Your task to perform on an android device: change keyboard looks Image 0: 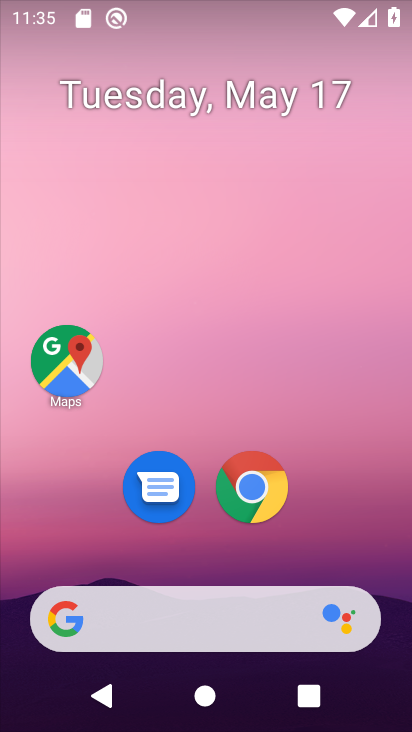
Step 0: drag from (376, 541) to (330, 142)
Your task to perform on an android device: change keyboard looks Image 1: 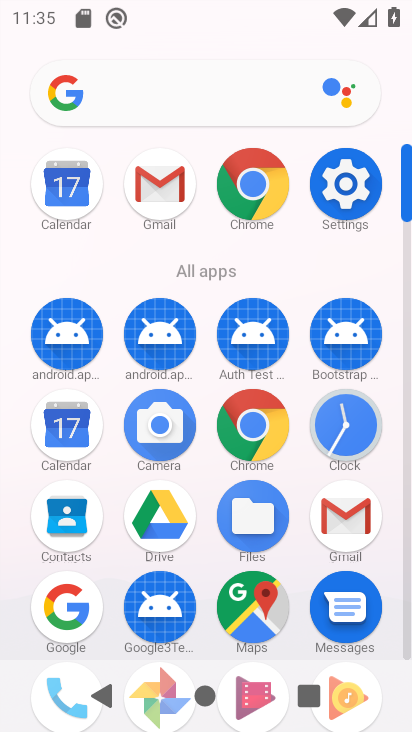
Step 1: click (357, 160)
Your task to perform on an android device: change keyboard looks Image 2: 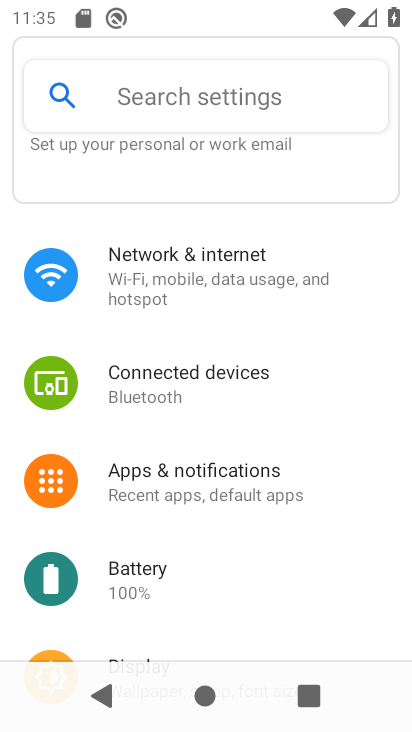
Step 2: drag from (306, 610) to (264, 115)
Your task to perform on an android device: change keyboard looks Image 3: 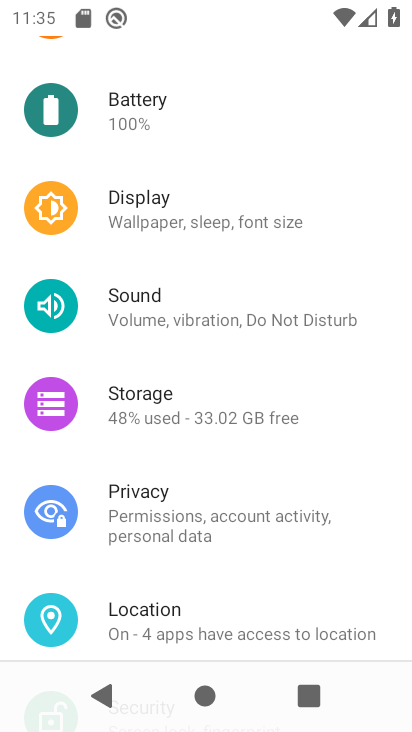
Step 3: drag from (284, 600) to (211, 138)
Your task to perform on an android device: change keyboard looks Image 4: 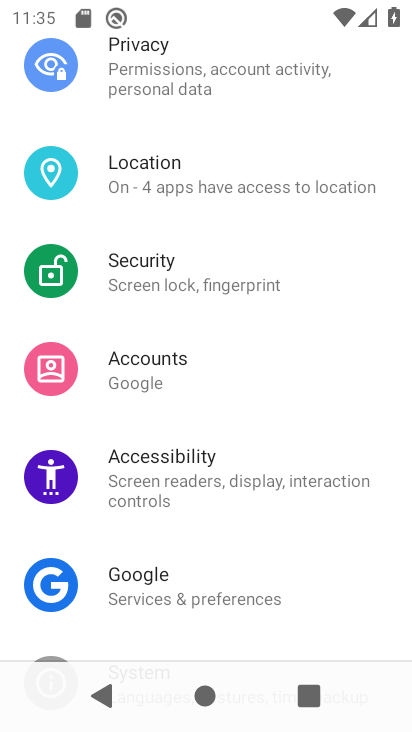
Step 4: drag from (257, 637) to (225, 201)
Your task to perform on an android device: change keyboard looks Image 5: 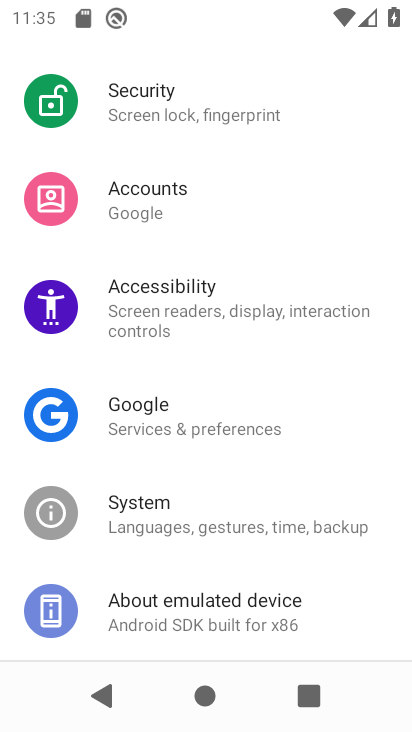
Step 5: click (264, 522)
Your task to perform on an android device: change keyboard looks Image 6: 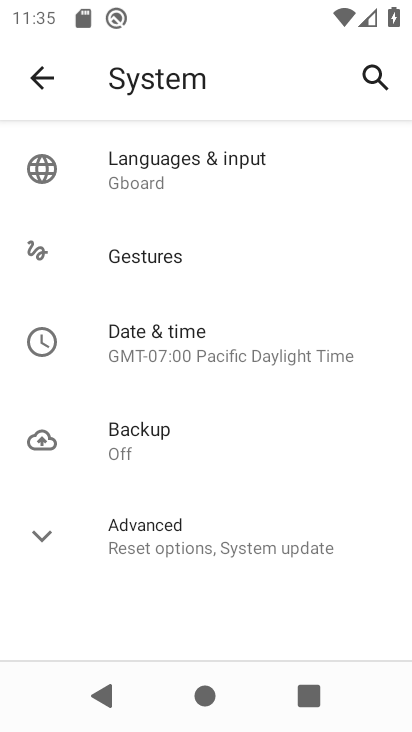
Step 6: click (242, 186)
Your task to perform on an android device: change keyboard looks Image 7: 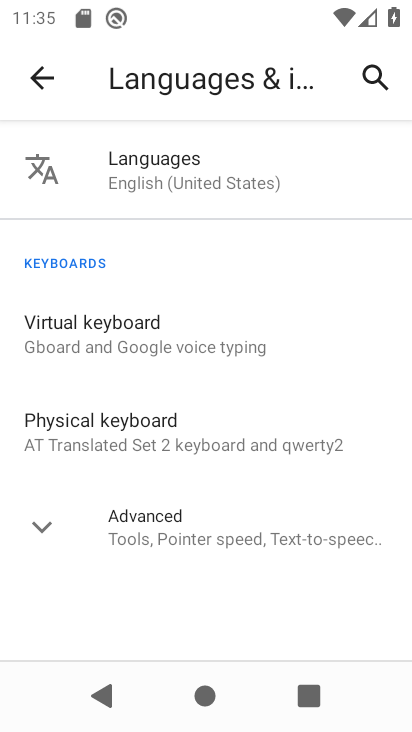
Step 7: click (226, 329)
Your task to perform on an android device: change keyboard looks Image 8: 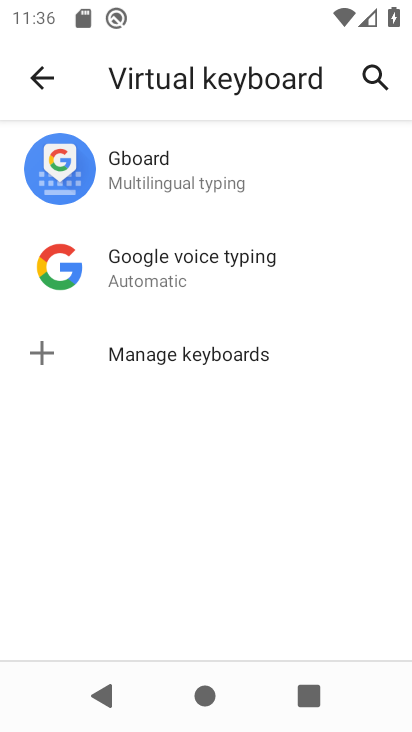
Step 8: click (261, 168)
Your task to perform on an android device: change keyboard looks Image 9: 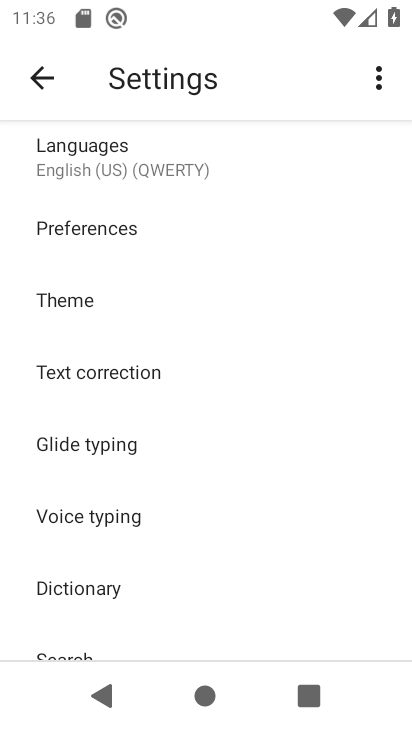
Step 9: click (131, 299)
Your task to perform on an android device: change keyboard looks Image 10: 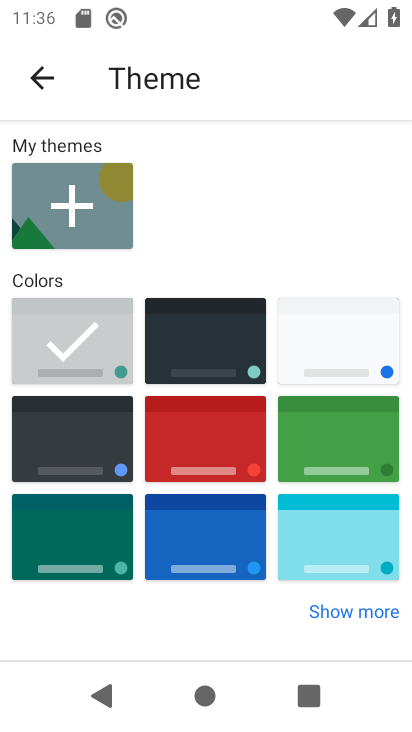
Step 10: click (172, 321)
Your task to perform on an android device: change keyboard looks Image 11: 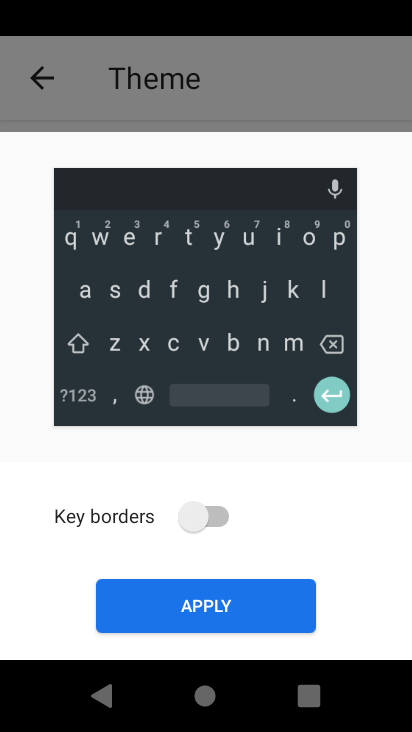
Step 11: click (248, 605)
Your task to perform on an android device: change keyboard looks Image 12: 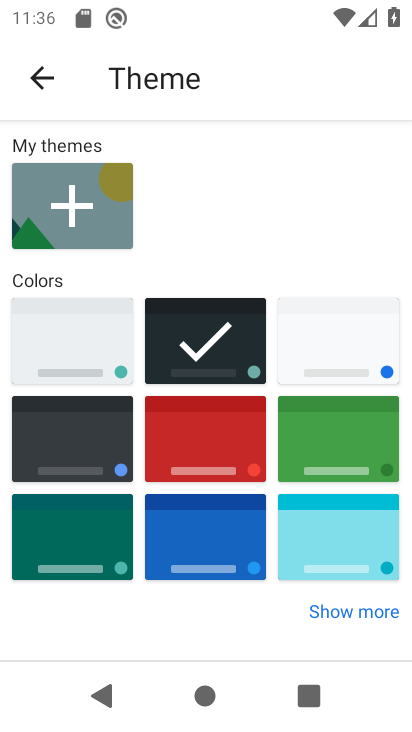
Step 12: task complete